Your task to perform on an android device: change notification settings in the gmail app Image 0: 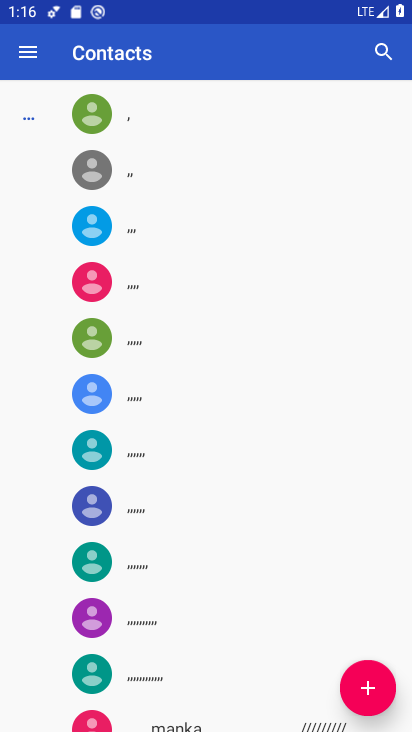
Step 0: press home button
Your task to perform on an android device: change notification settings in the gmail app Image 1: 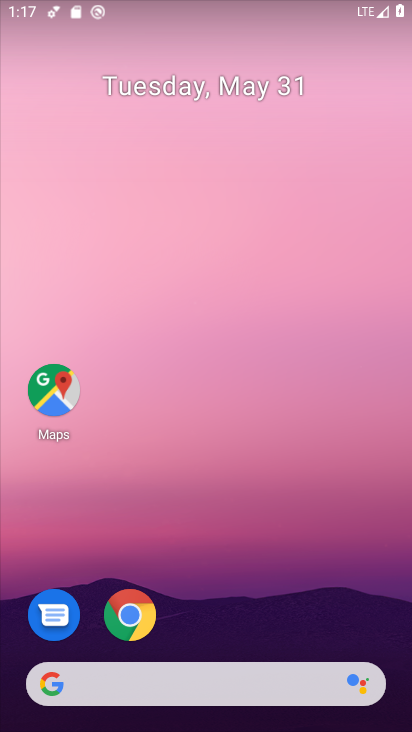
Step 1: drag from (244, 641) to (236, 0)
Your task to perform on an android device: change notification settings in the gmail app Image 2: 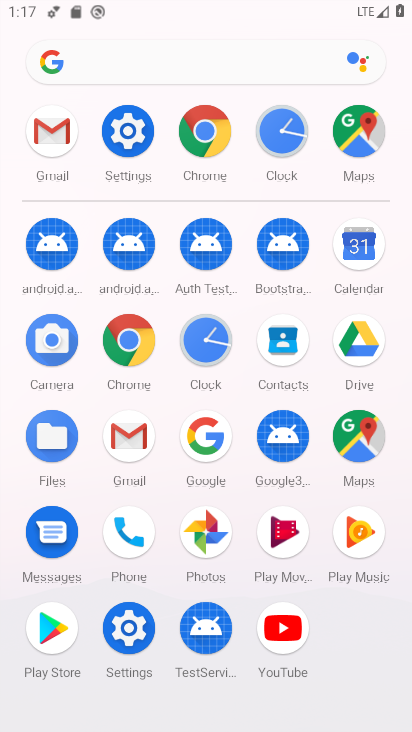
Step 2: click (136, 455)
Your task to perform on an android device: change notification settings in the gmail app Image 3: 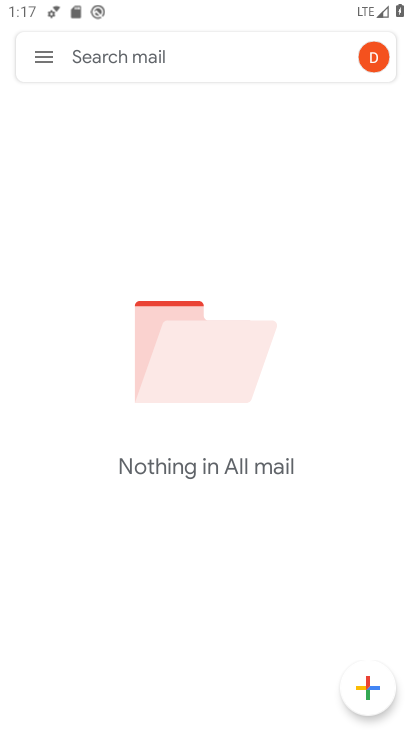
Step 3: click (46, 54)
Your task to perform on an android device: change notification settings in the gmail app Image 4: 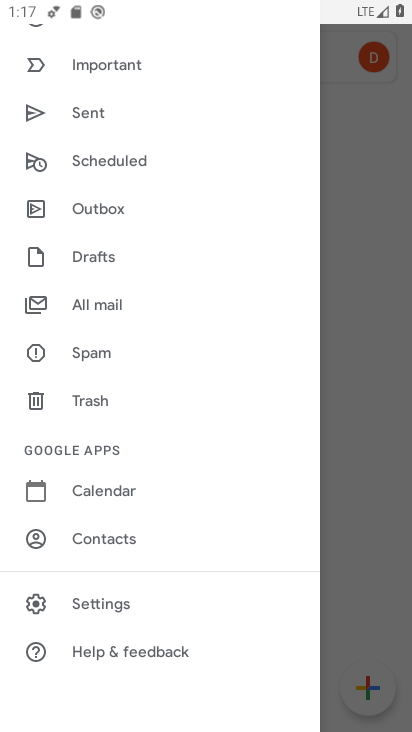
Step 4: click (110, 605)
Your task to perform on an android device: change notification settings in the gmail app Image 5: 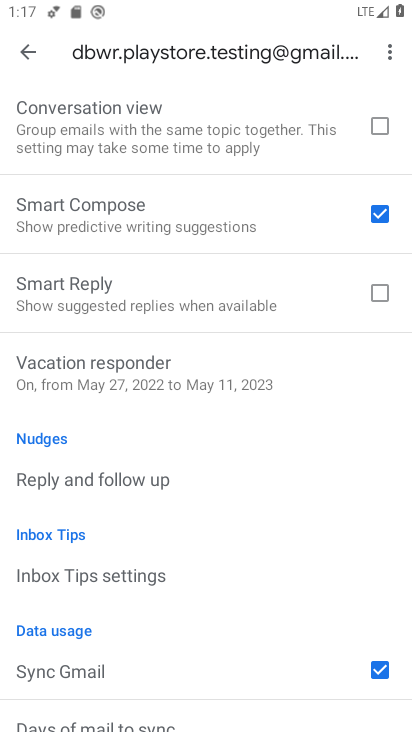
Step 5: click (28, 49)
Your task to perform on an android device: change notification settings in the gmail app Image 6: 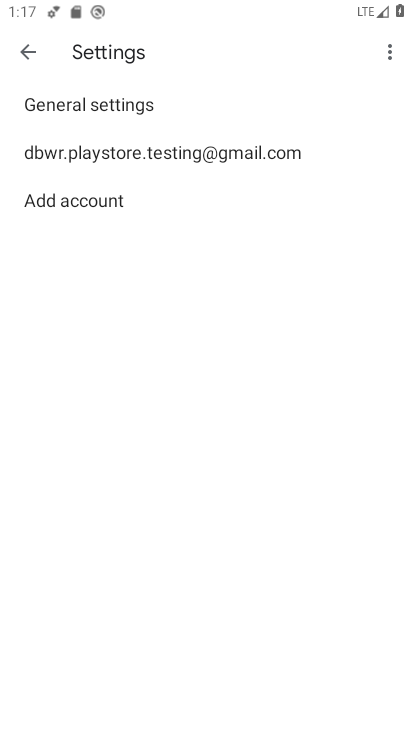
Step 6: click (133, 102)
Your task to perform on an android device: change notification settings in the gmail app Image 7: 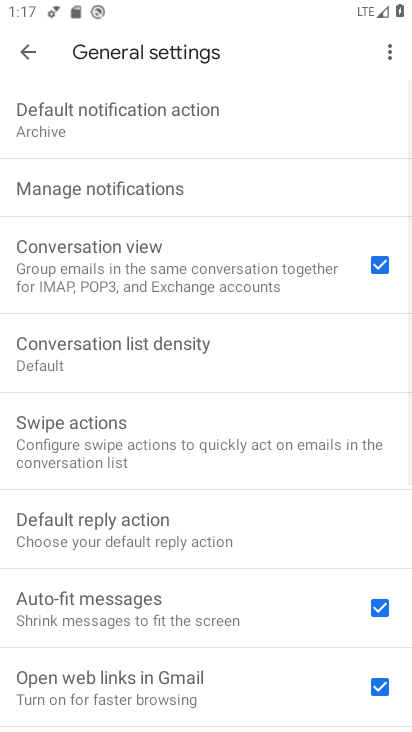
Step 7: click (139, 184)
Your task to perform on an android device: change notification settings in the gmail app Image 8: 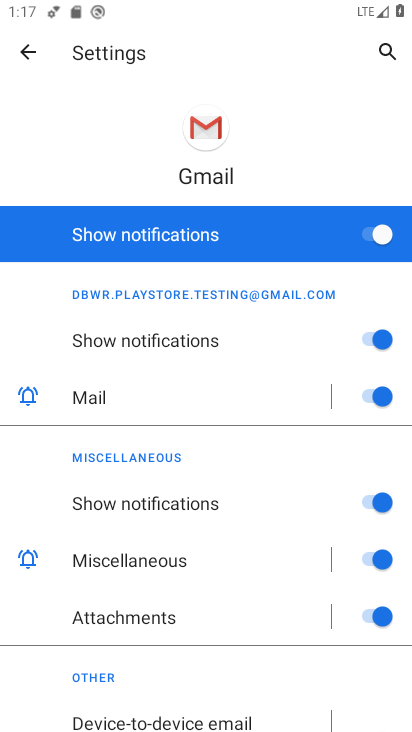
Step 8: click (358, 231)
Your task to perform on an android device: change notification settings in the gmail app Image 9: 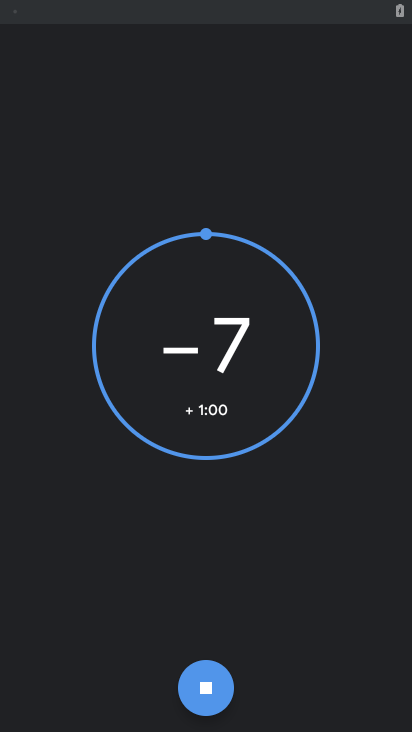
Step 9: click (201, 666)
Your task to perform on an android device: change notification settings in the gmail app Image 10: 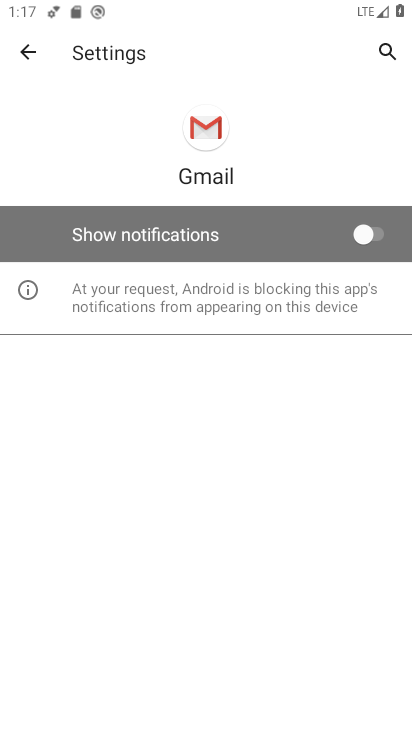
Step 10: click (391, 239)
Your task to perform on an android device: change notification settings in the gmail app Image 11: 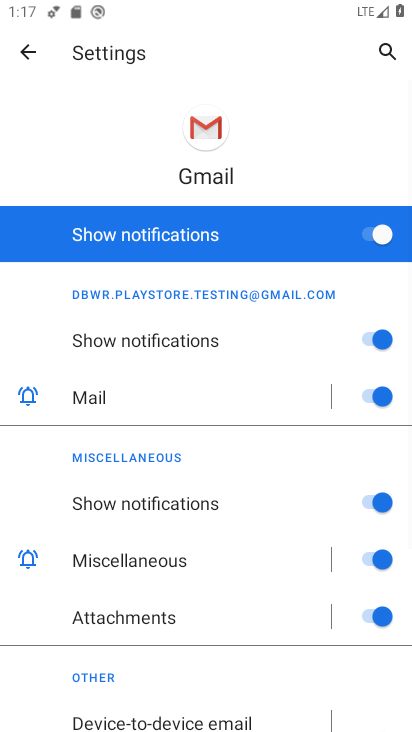
Step 11: task complete